Your task to perform on an android device: Open Chrome and go to settings Image 0: 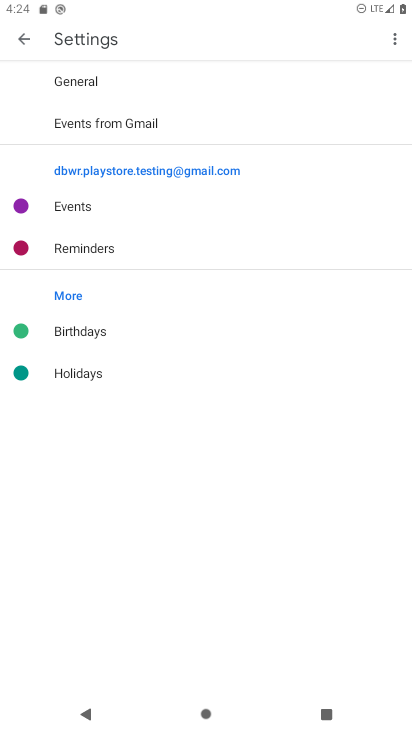
Step 0: press home button
Your task to perform on an android device: Open Chrome and go to settings Image 1: 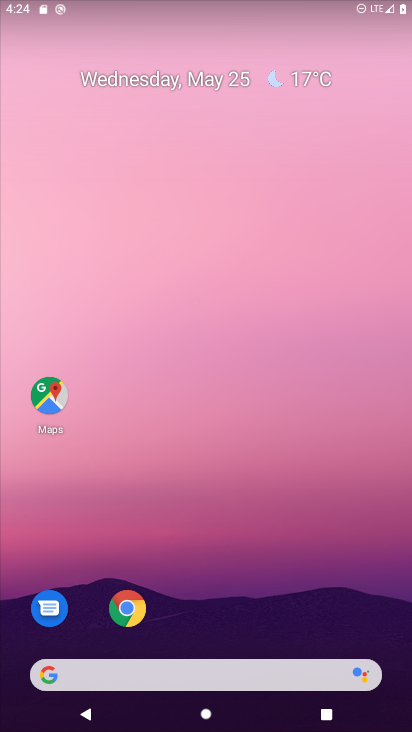
Step 1: click (125, 606)
Your task to perform on an android device: Open Chrome and go to settings Image 2: 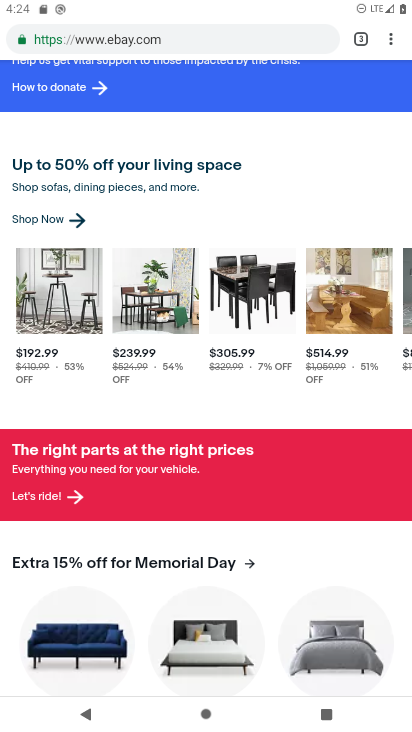
Step 2: click (391, 41)
Your task to perform on an android device: Open Chrome and go to settings Image 3: 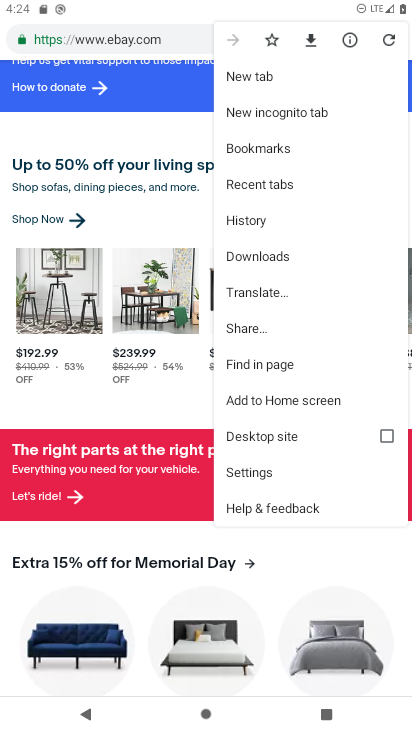
Step 3: click (247, 467)
Your task to perform on an android device: Open Chrome and go to settings Image 4: 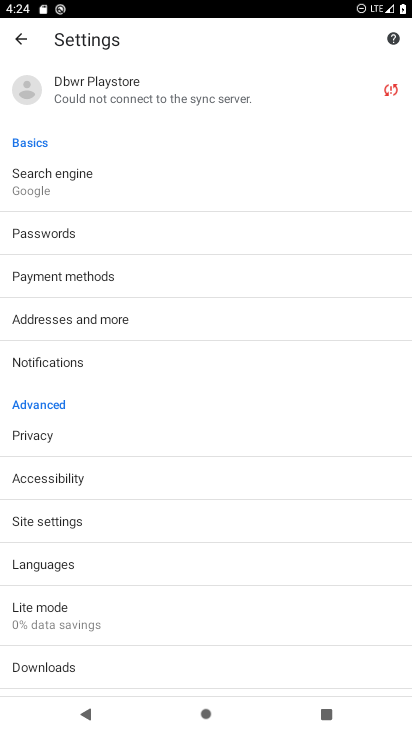
Step 4: task complete